Your task to perform on an android device: When is my next appointment? Image 0: 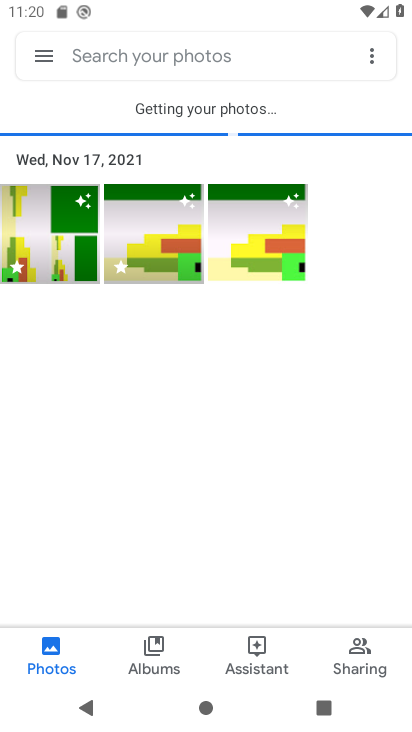
Step 0: press home button
Your task to perform on an android device: When is my next appointment? Image 1: 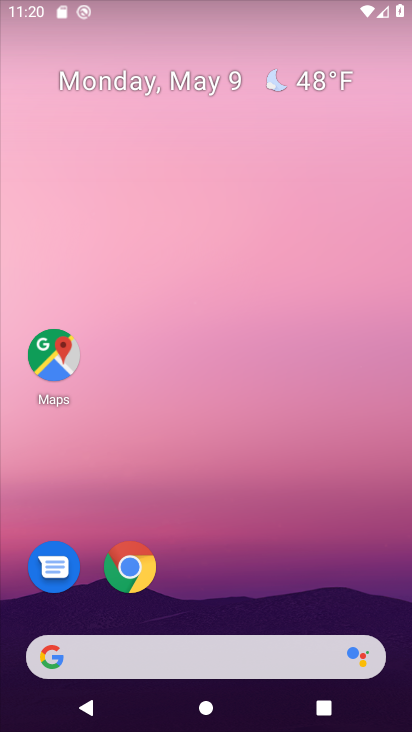
Step 1: drag from (161, 447) to (241, 3)
Your task to perform on an android device: When is my next appointment? Image 2: 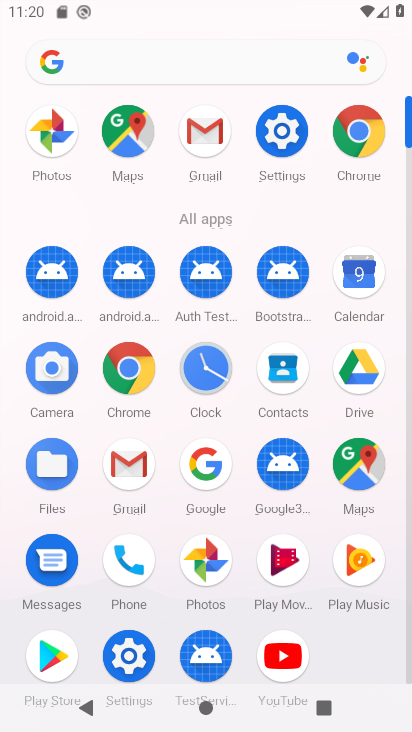
Step 2: click (375, 294)
Your task to perform on an android device: When is my next appointment? Image 3: 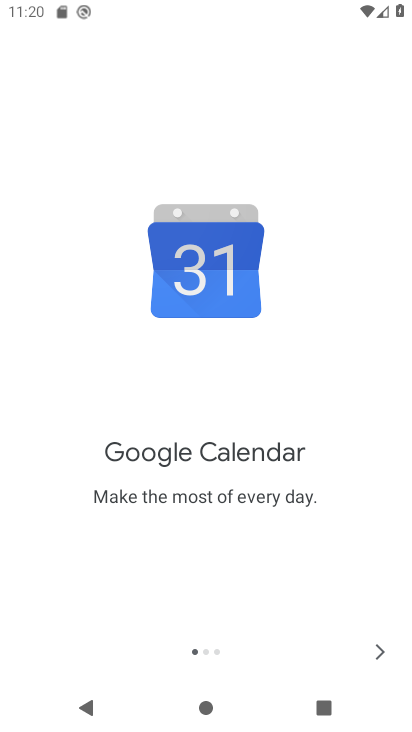
Step 3: click (382, 650)
Your task to perform on an android device: When is my next appointment? Image 4: 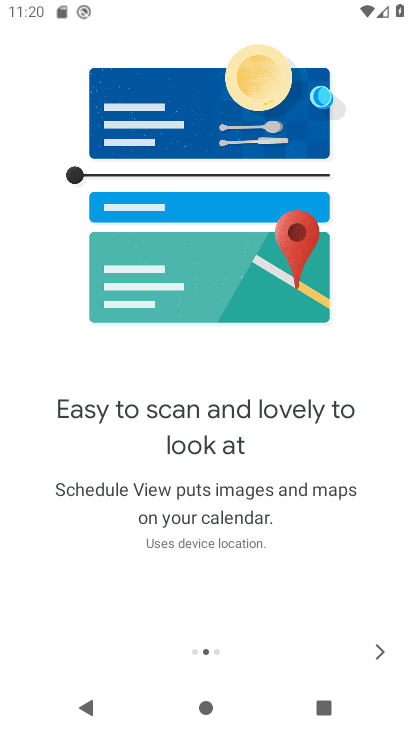
Step 4: click (382, 650)
Your task to perform on an android device: When is my next appointment? Image 5: 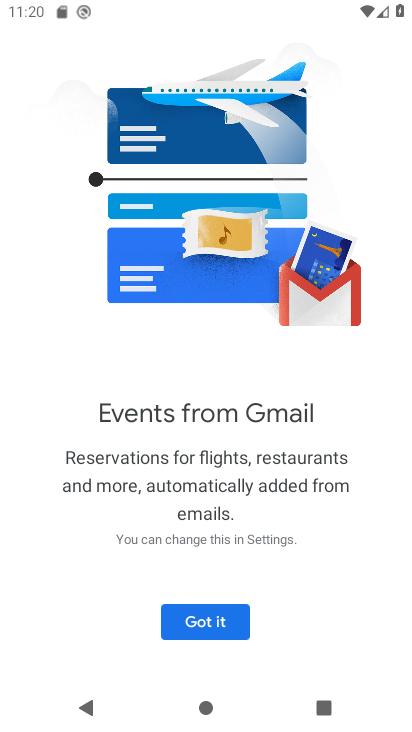
Step 5: click (211, 625)
Your task to perform on an android device: When is my next appointment? Image 6: 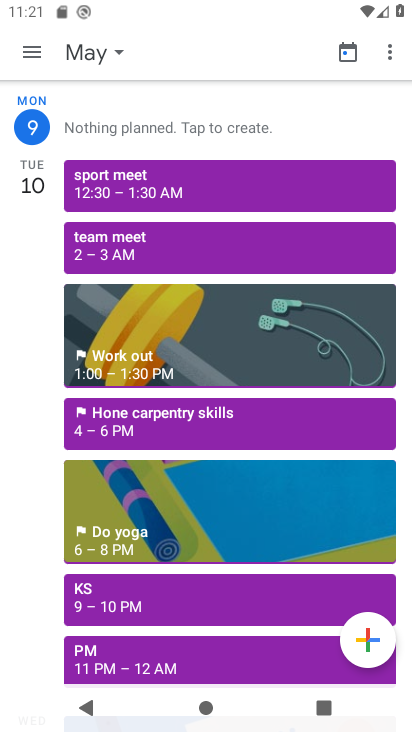
Step 6: task complete